Your task to perform on an android device: Go to Yahoo.com Image 0: 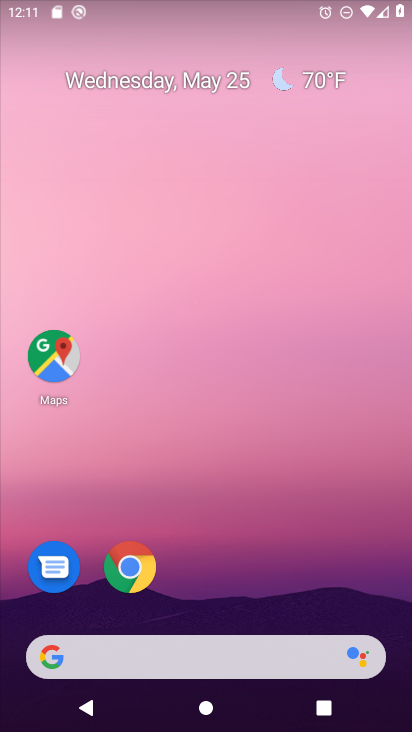
Step 0: click (126, 562)
Your task to perform on an android device: Go to Yahoo.com Image 1: 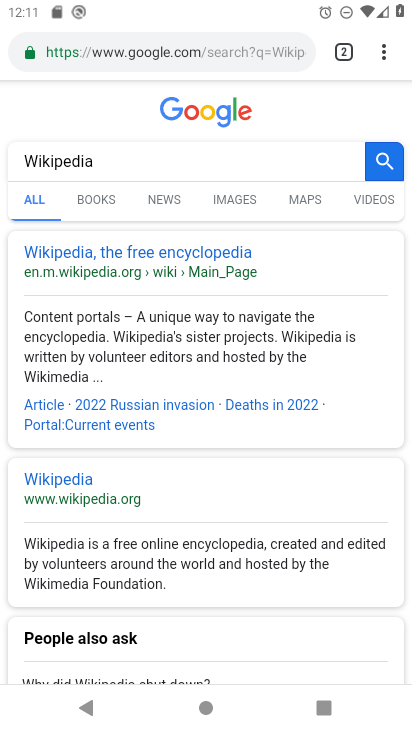
Step 1: click (304, 52)
Your task to perform on an android device: Go to Yahoo.com Image 2: 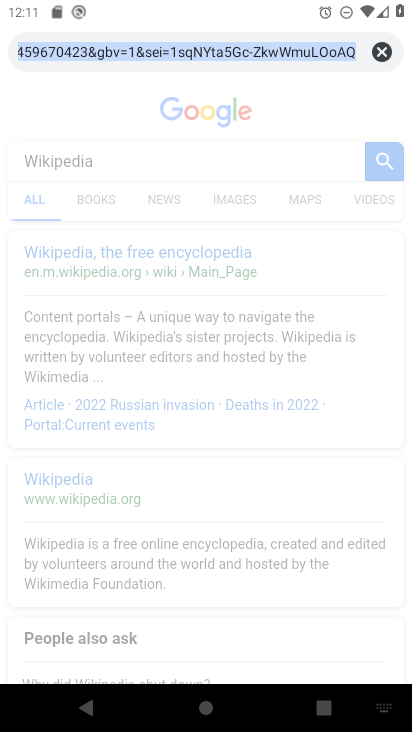
Step 2: click (378, 48)
Your task to perform on an android device: Go to Yahoo.com Image 3: 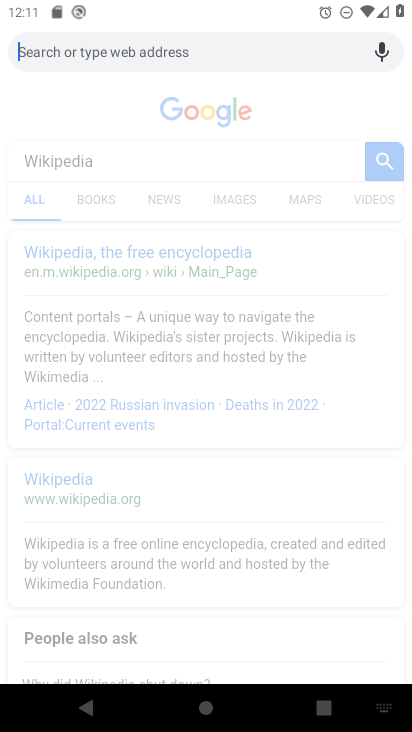
Step 3: type "Yahoo.com"
Your task to perform on an android device: Go to Yahoo.com Image 4: 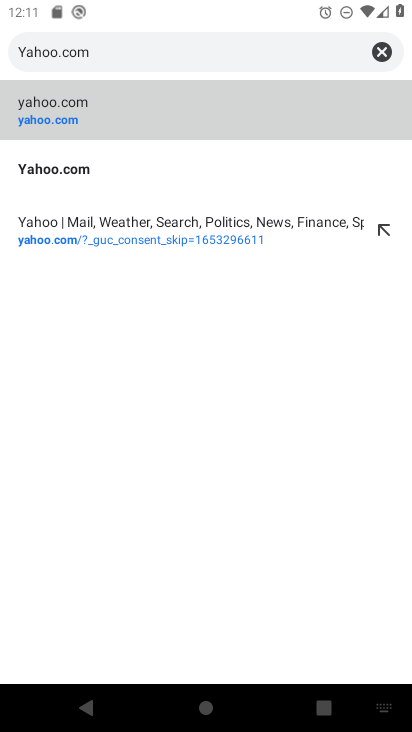
Step 4: click (44, 170)
Your task to perform on an android device: Go to Yahoo.com Image 5: 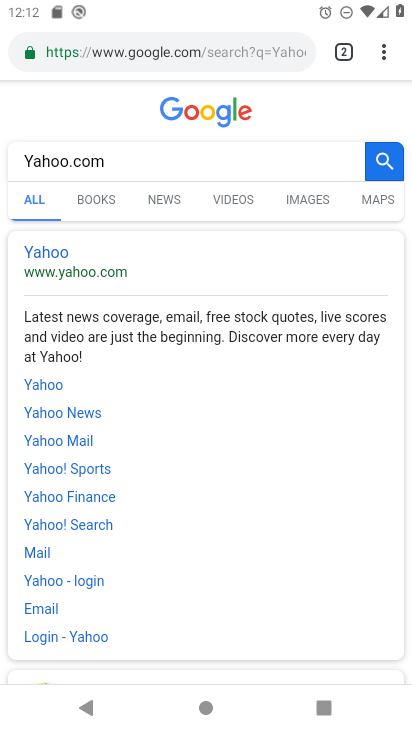
Step 5: task complete